Your task to perform on an android device: check android version Image 0: 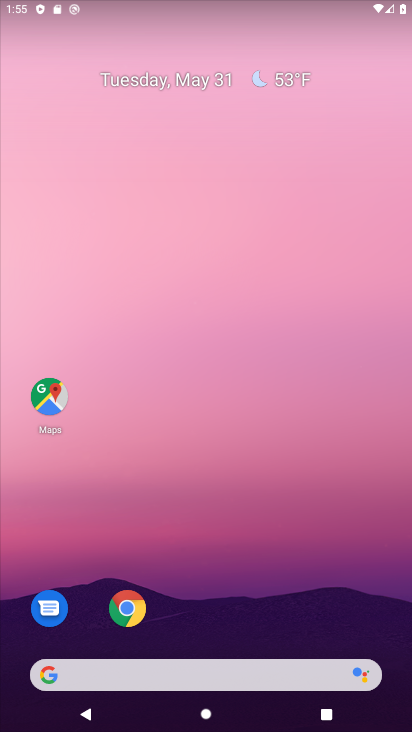
Step 0: drag from (295, 623) to (281, 303)
Your task to perform on an android device: check android version Image 1: 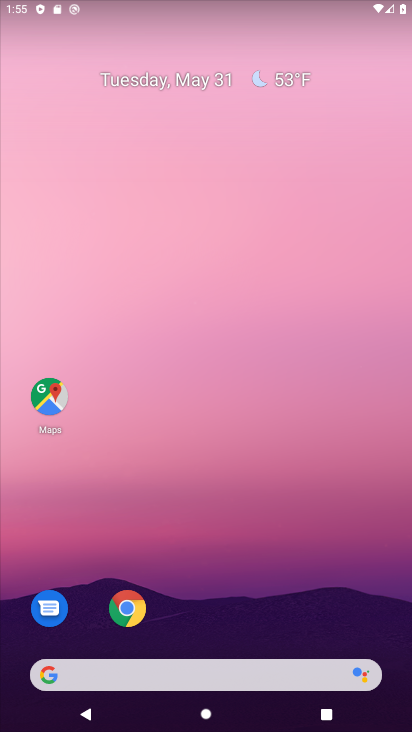
Step 1: drag from (286, 578) to (275, 88)
Your task to perform on an android device: check android version Image 2: 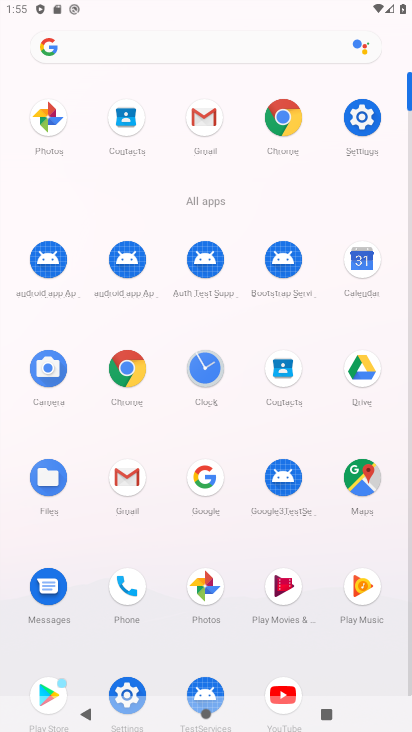
Step 2: click (358, 115)
Your task to perform on an android device: check android version Image 3: 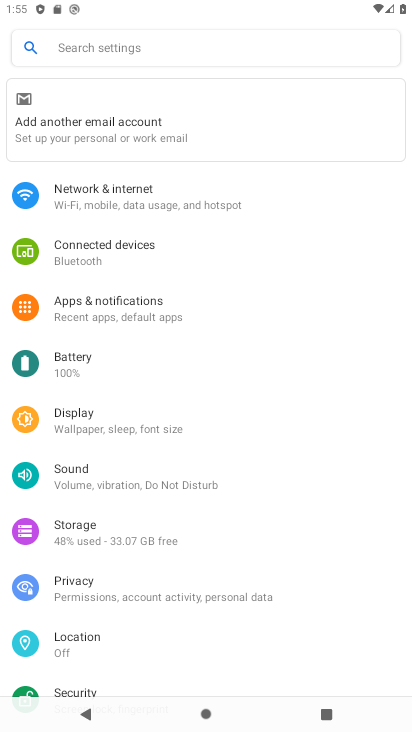
Step 3: drag from (308, 613) to (297, 131)
Your task to perform on an android device: check android version Image 4: 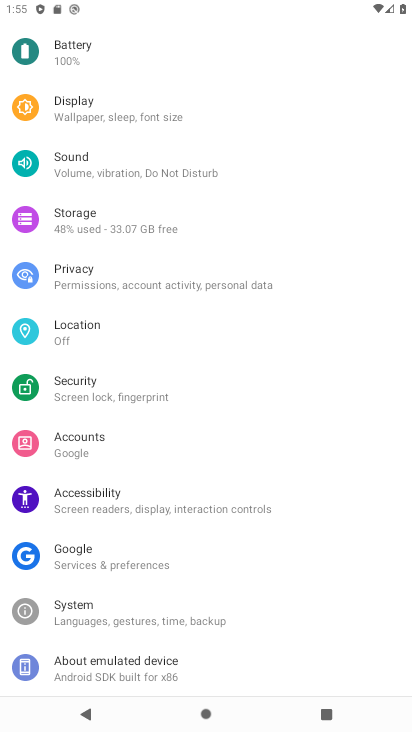
Step 4: click (138, 665)
Your task to perform on an android device: check android version Image 5: 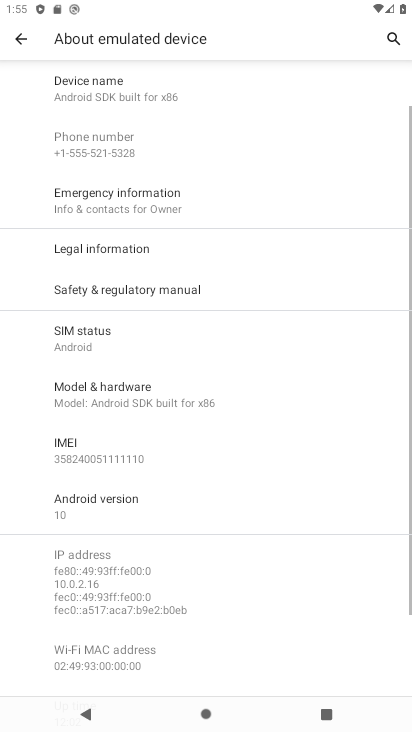
Step 5: task complete